Your task to perform on an android device: turn on improve location accuracy Image 0: 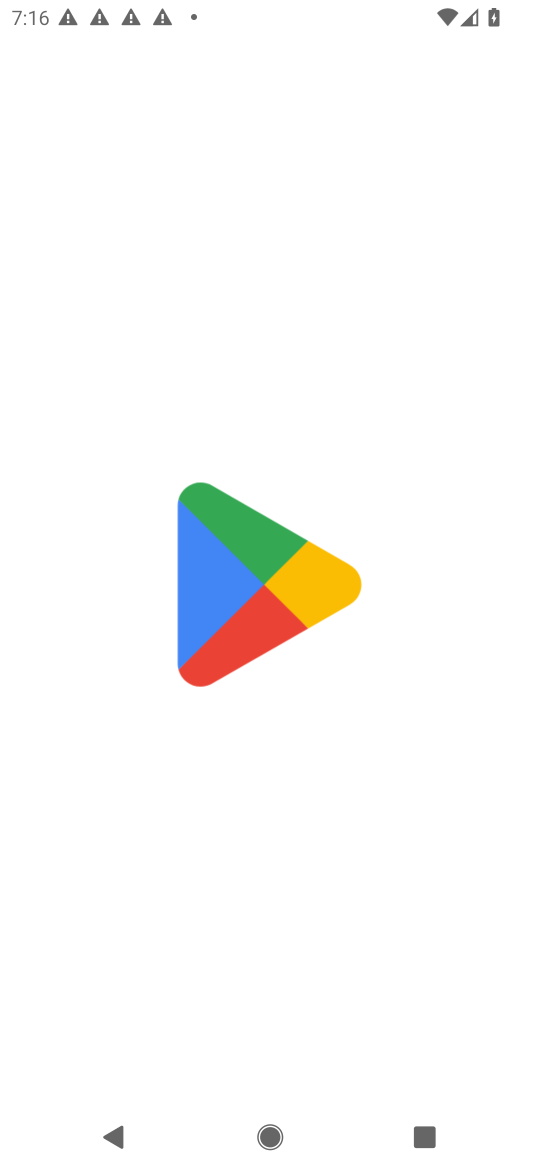
Step 0: press home button
Your task to perform on an android device: turn on improve location accuracy Image 1: 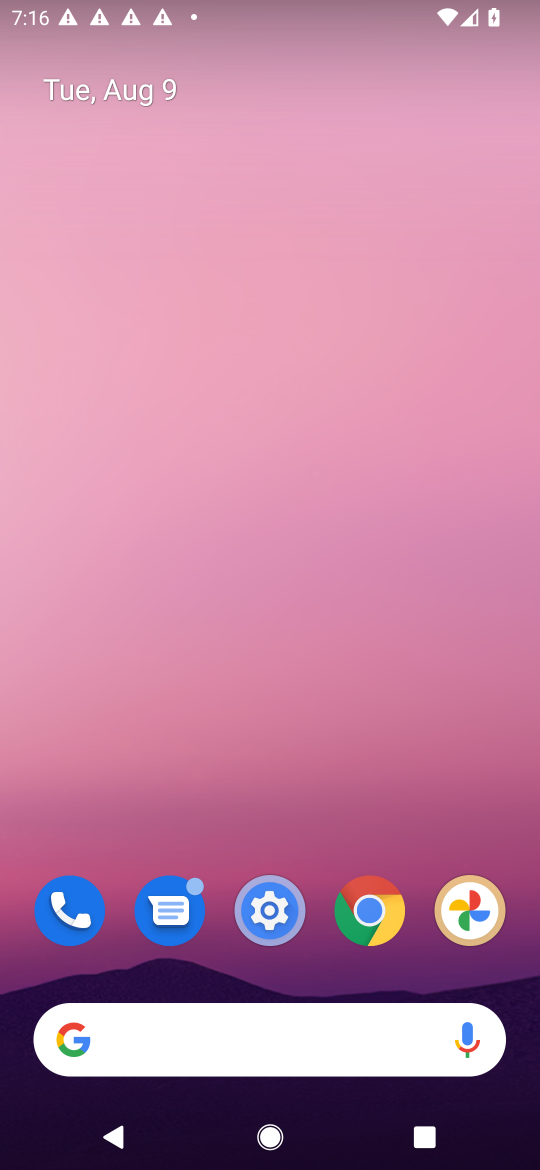
Step 1: drag from (341, 933) to (439, 302)
Your task to perform on an android device: turn on improve location accuracy Image 2: 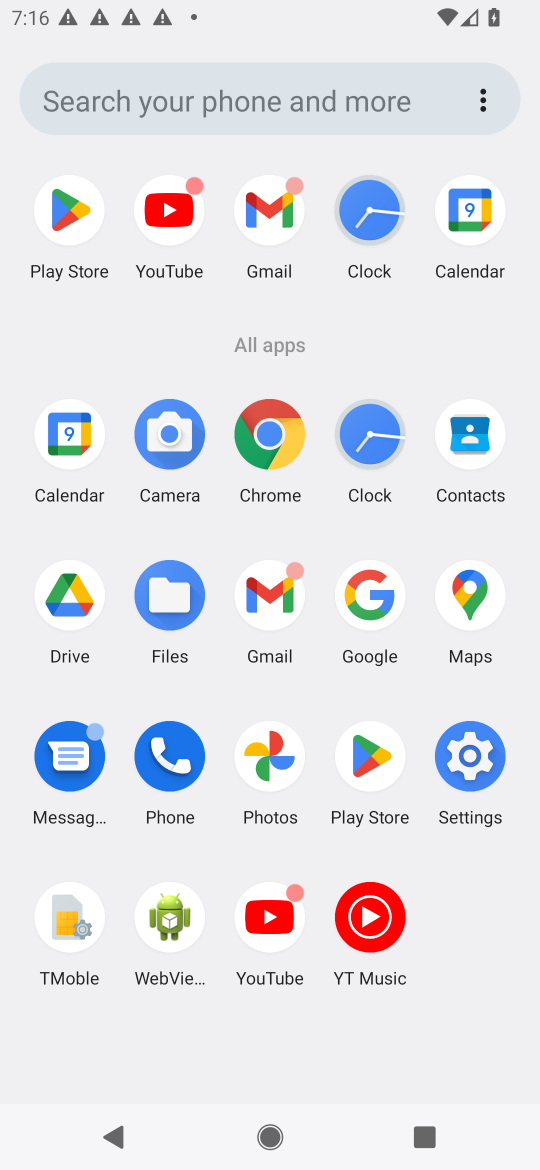
Step 2: click (468, 802)
Your task to perform on an android device: turn on improve location accuracy Image 3: 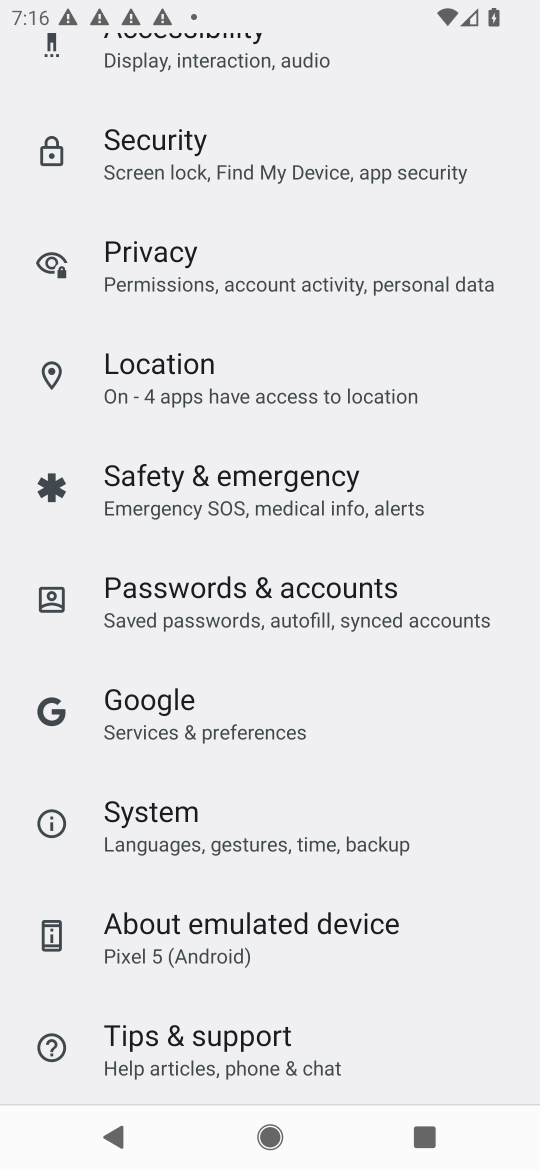
Step 3: click (237, 390)
Your task to perform on an android device: turn on improve location accuracy Image 4: 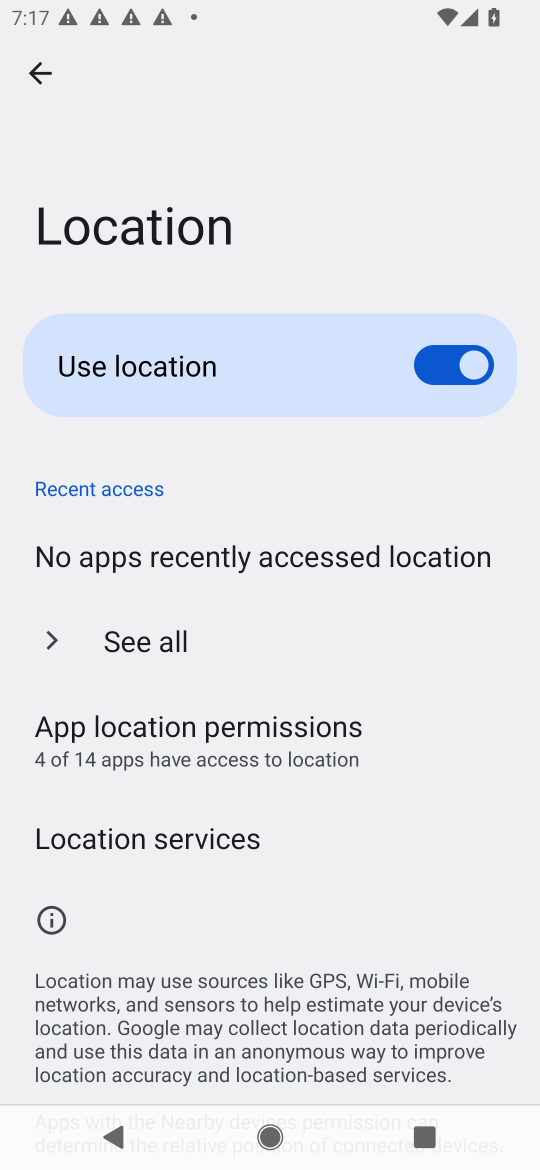
Step 4: click (137, 851)
Your task to perform on an android device: turn on improve location accuracy Image 5: 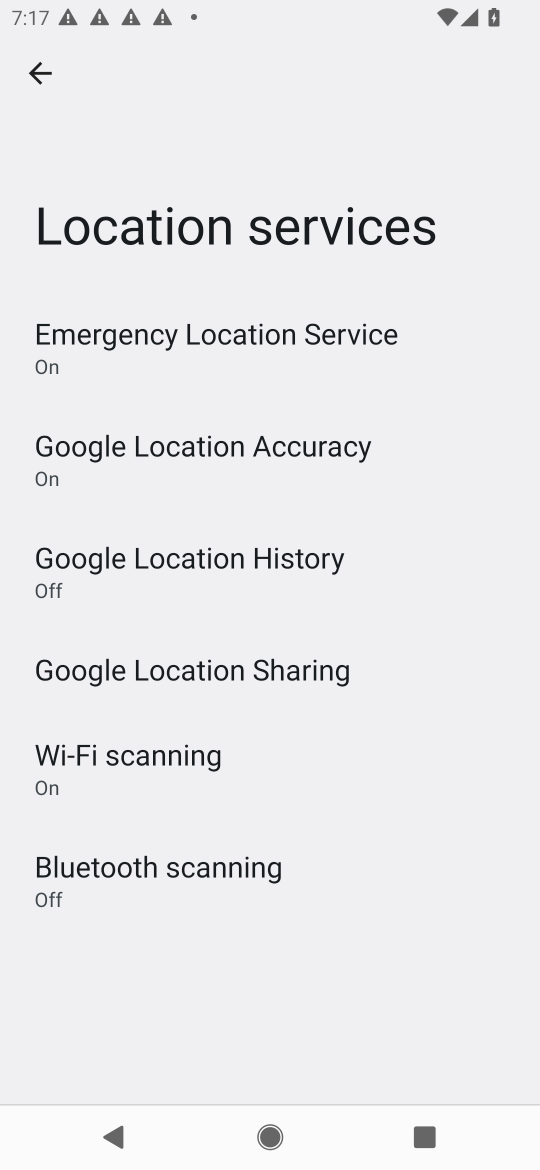
Step 5: click (122, 461)
Your task to perform on an android device: turn on improve location accuracy Image 6: 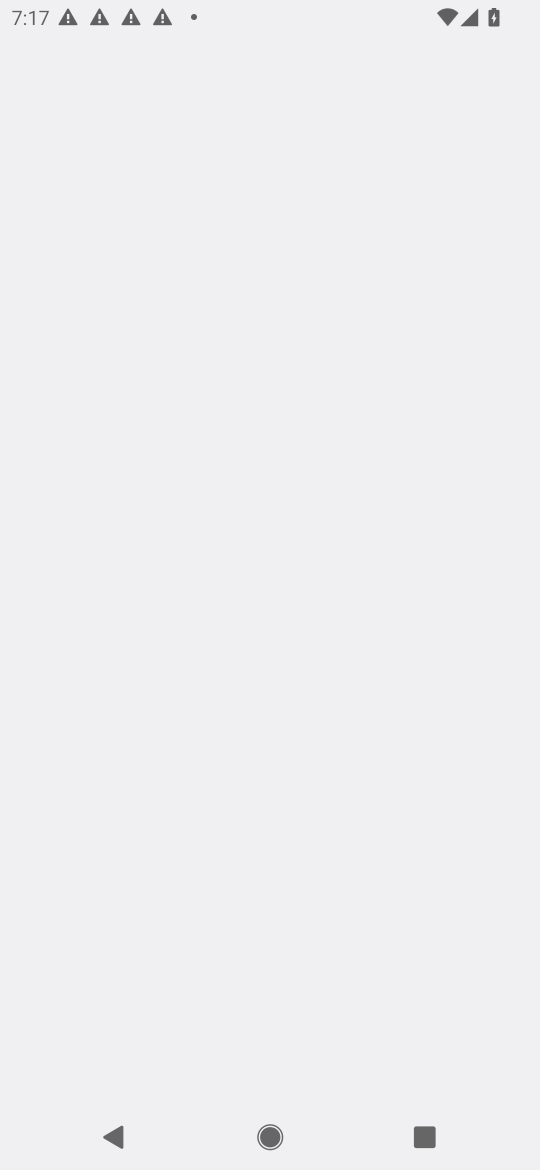
Step 6: task complete